Your task to perform on an android device: empty trash in the gmail app Image 0: 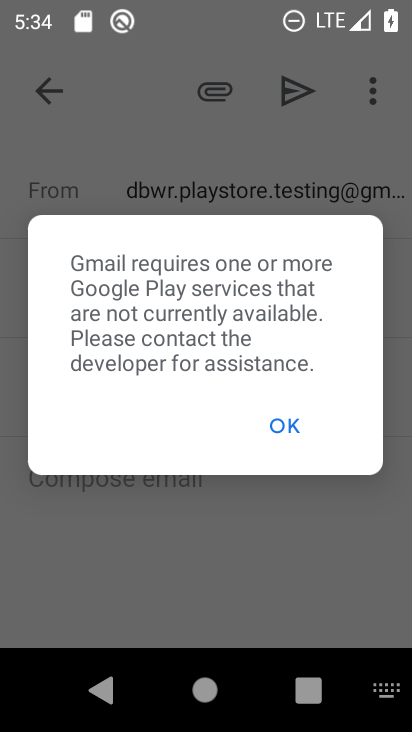
Step 0: press home button
Your task to perform on an android device: empty trash in the gmail app Image 1: 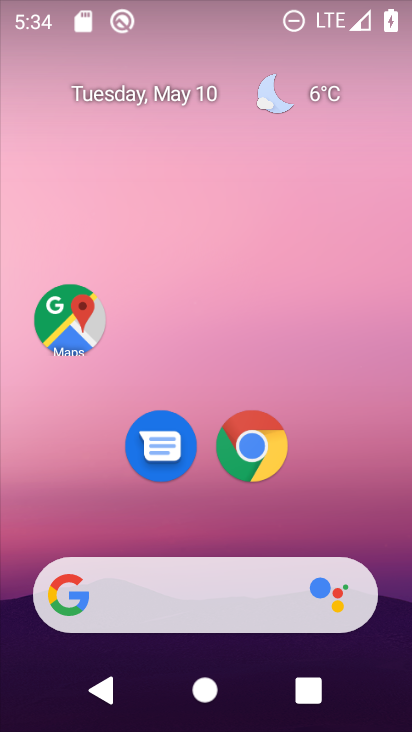
Step 1: drag from (322, 440) to (249, 38)
Your task to perform on an android device: empty trash in the gmail app Image 2: 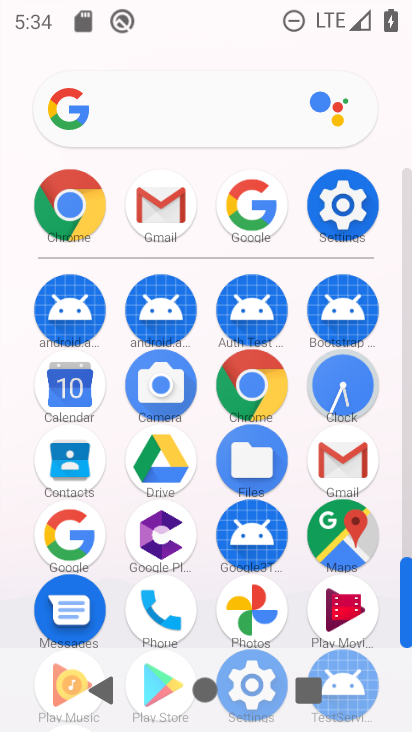
Step 2: click (359, 454)
Your task to perform on an android device: empty trash in the gmail app Image 3: 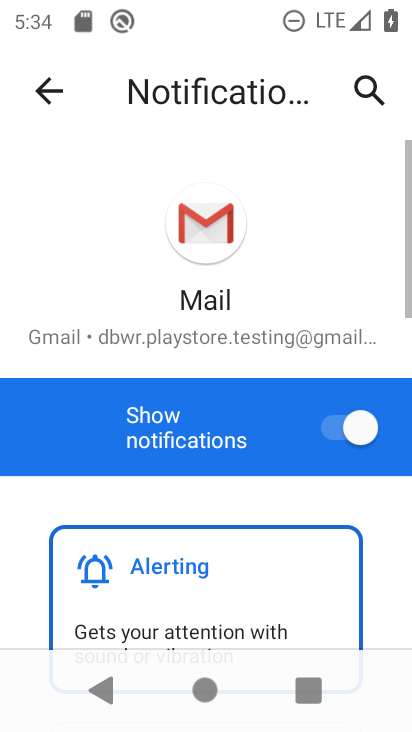
Step 3: click (54, 105)
Your task to perform on an android device: empty trash in the gmail app Image 4: 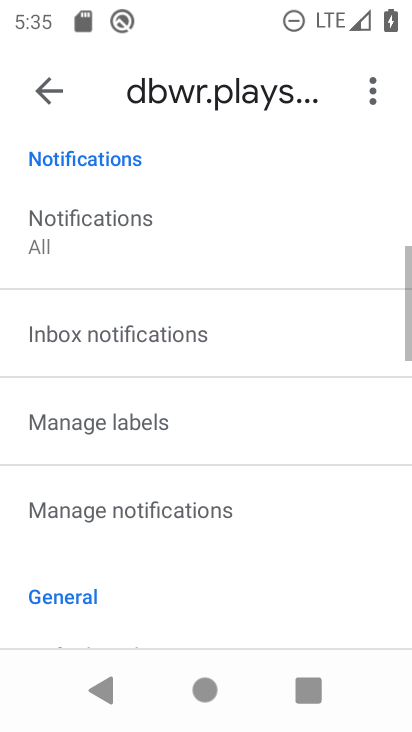
Step 4: click (42, 94)
Your task to perform on an android device: empty trash in the gmail app Image 5: 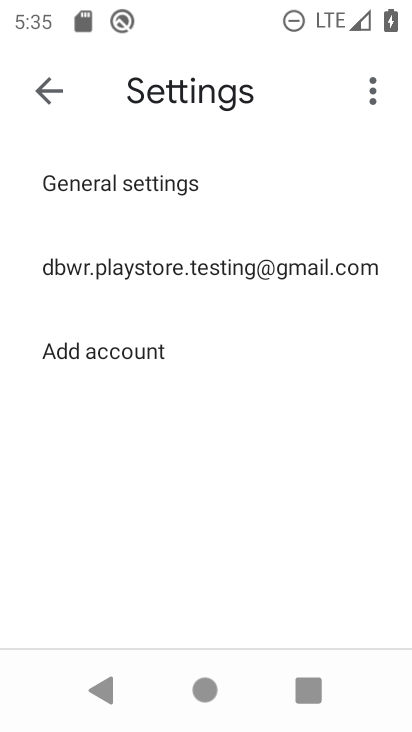
Step 5: click (42, 94)
Your task to perform on an android device: empty trash in the gmail app Image 6: 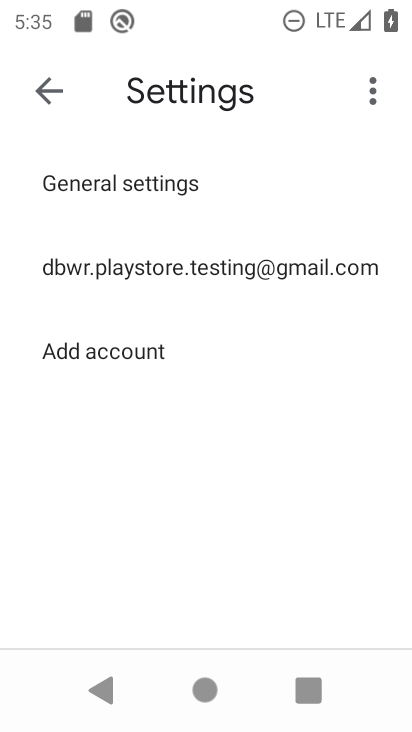
Step 6: click (49, 93)
Your task to perform on an android device: empty trash in the gmail app Image 7: 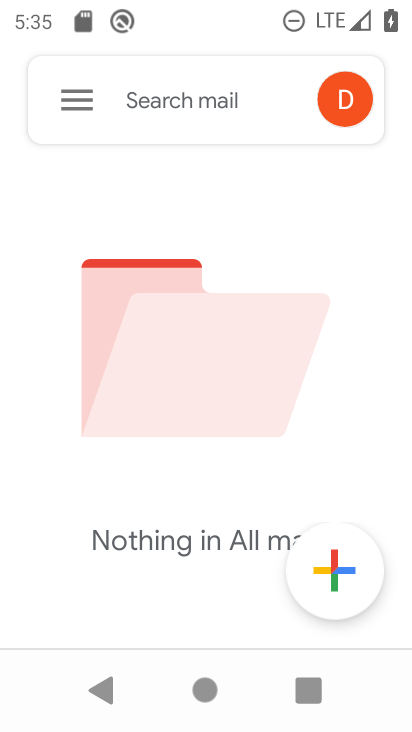
Step 7: click (85, 90)
Your task to perform on an android device: empty trash in the gmail app Image 8: 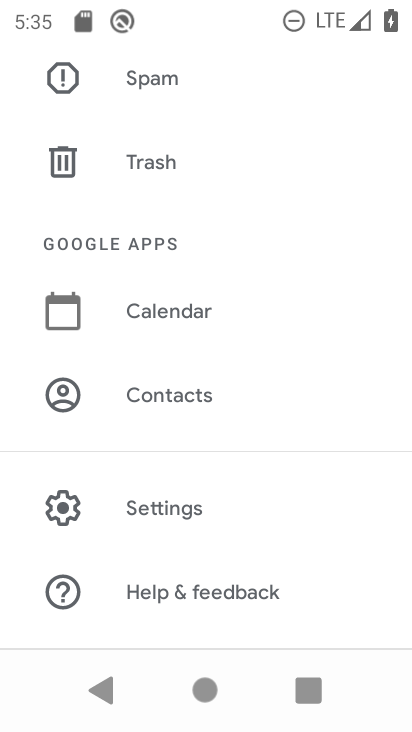
Step 8: click (156, 171)
Your task to perform on an android device: empty trash in the gmail app Image 9: 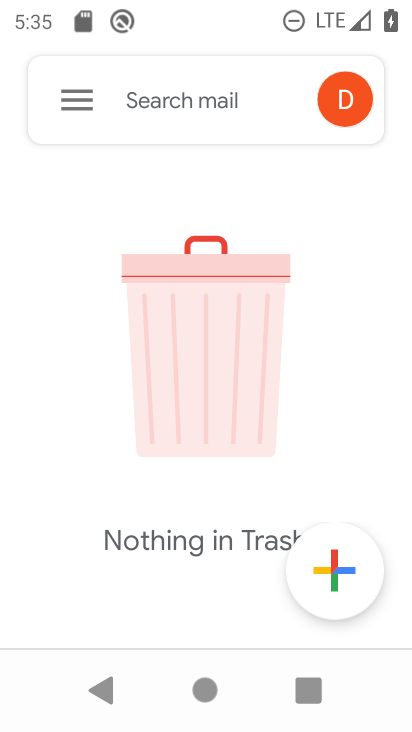
Step 9: task complete